Your task to perform on an android device: turn off data saver in the chrome app Image 0: 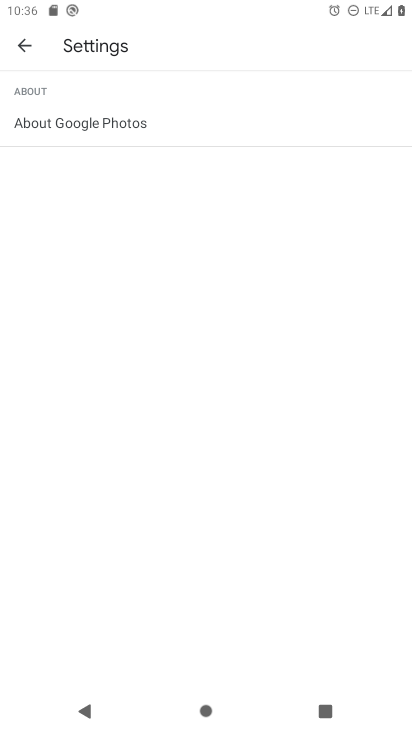
Step 0: press home button
Your task to perform on an android device: turn off data saver in the chrome app Image 1: 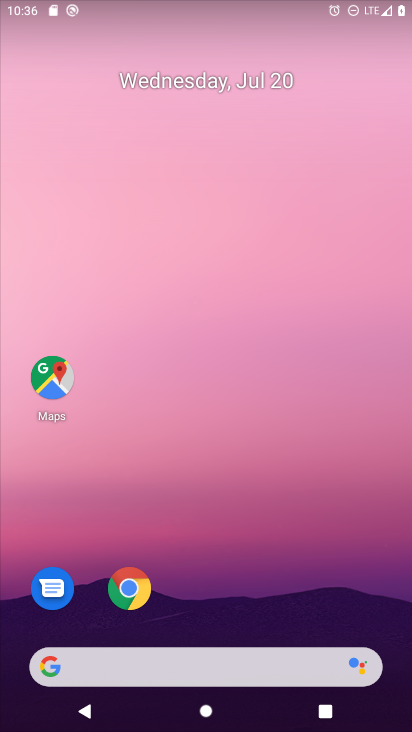
Step 1: click (134, 590)
Your task to perform on an android device: turn off data saver in the chrome app Image 2: 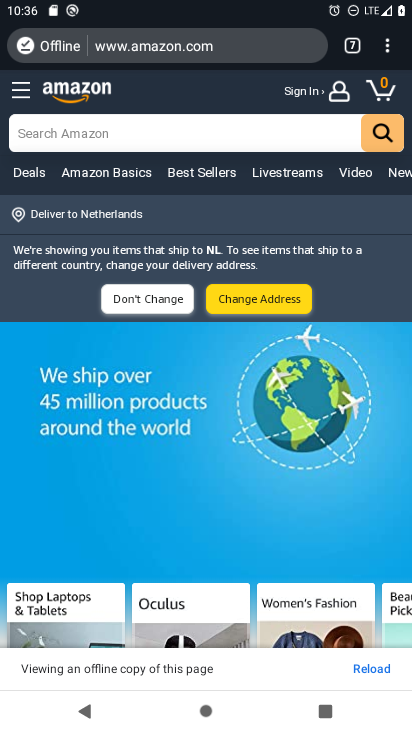
Step 2: click (390, 56)
Your task to perform on an android device: turn off data saver in the chrome app Image 3: 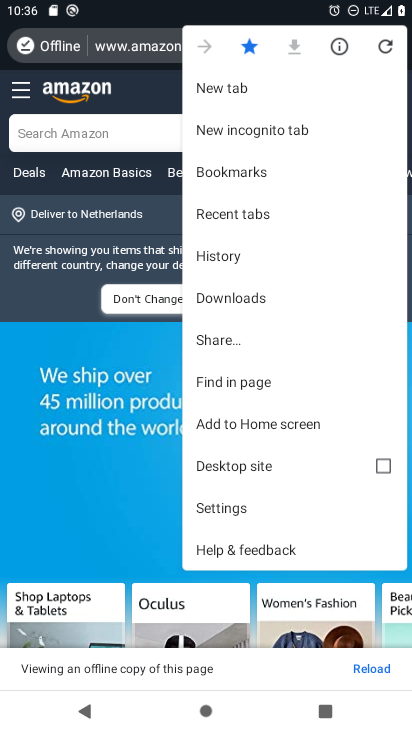
Step 3: click (246, 502)
Your task to perform on an android device: turn off data saver in the chrome app Image 4: 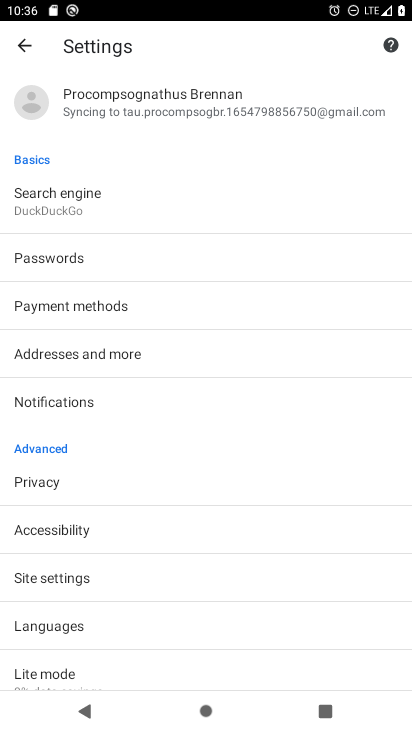
Step 4: click (49, 671)
Your task to perform on an android device: turn off data saver in the chrome app Image 5: 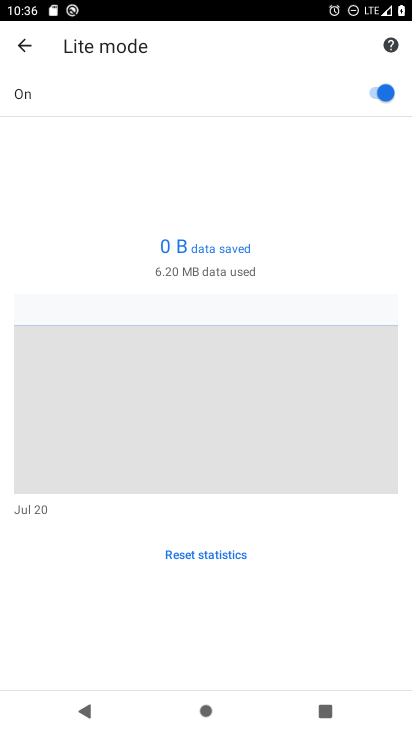
Step 5: click (385, 100)
Your task to perform on an android device: turn off data saver in the chrome app Image 6: 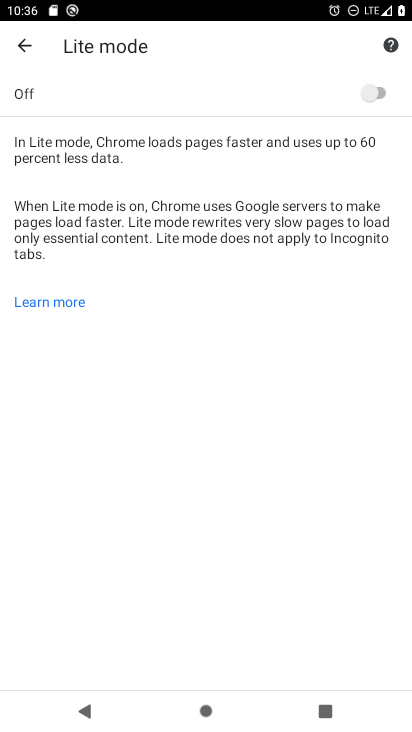
Step 6: task complete